Your task to perform on an android device: turn pop-ups on in chrome Image 0: 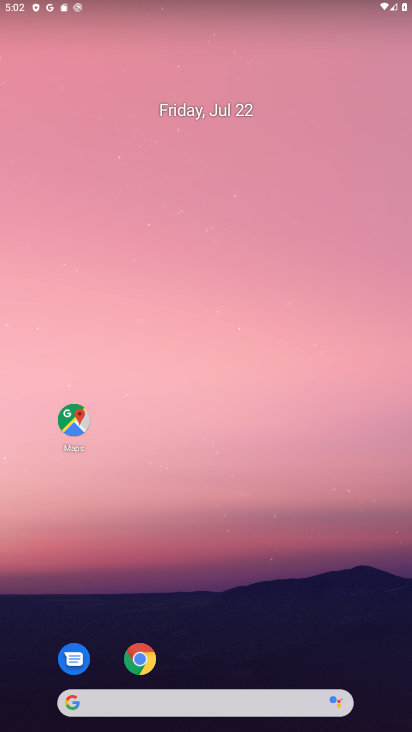
Step 0: press home button
Your task to perform on an android device: turn pop-ups on in chrome Image 1: 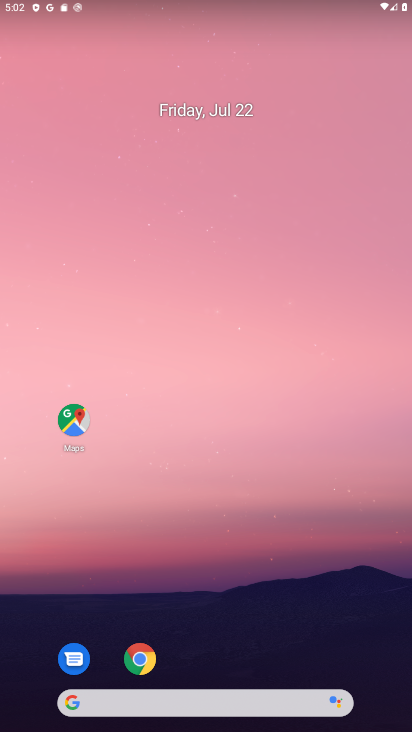
Step 1: click (137, 651)
Your task to perform on an android device: turn pop-ups on in chrome Image 2: 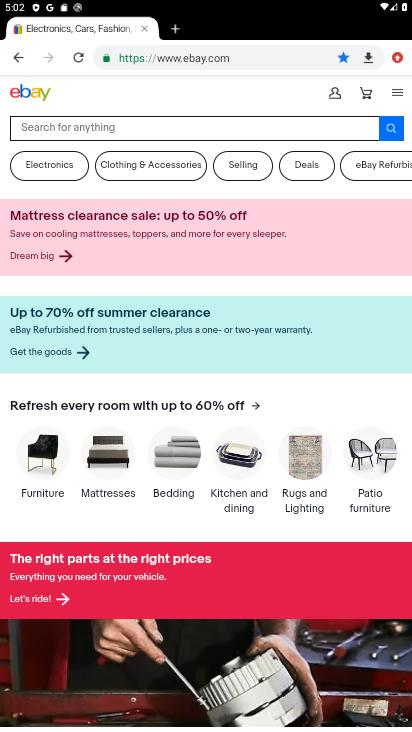
Step 2: click (396, 55)
Your task to perform on an android device: turn pop-ups on in chrome Image 3: 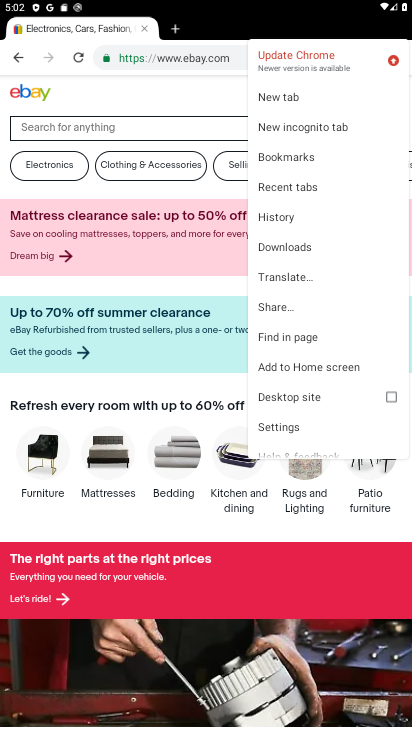
Step 3: click (306, 426)
Your task to perform on an android device: turn pop-ups on in chrome Image 4: 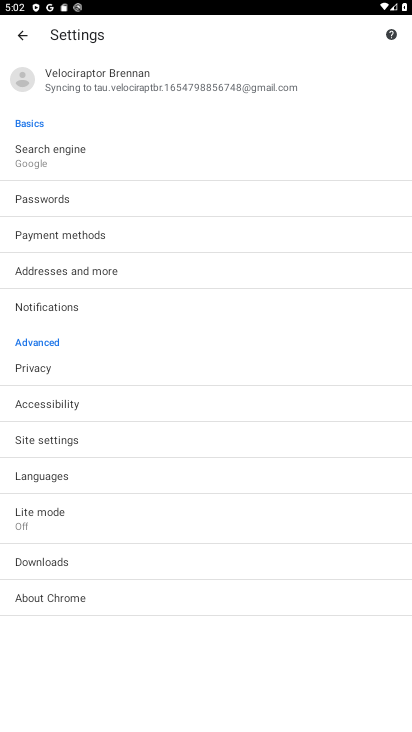
Step 4: click (87, 437)
Your task to perform on an android device: turn pop-ups on in chrome Image 5: 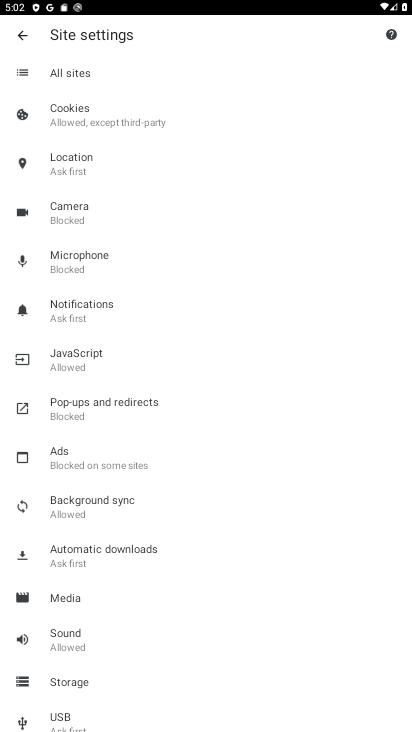
Step 5: click (108, 411)
Your task to perform on an android device: turn pop-ups on in chrome Image 6: 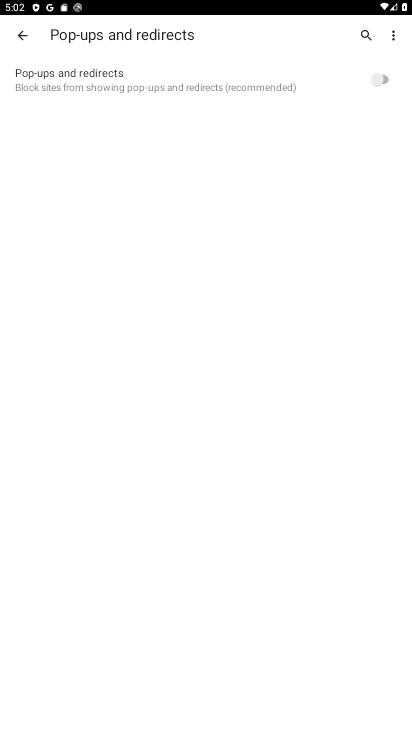
Step 6: click (377, 78)
Your task to perform on an android device: turn pop-ups on in chrome Image 7: 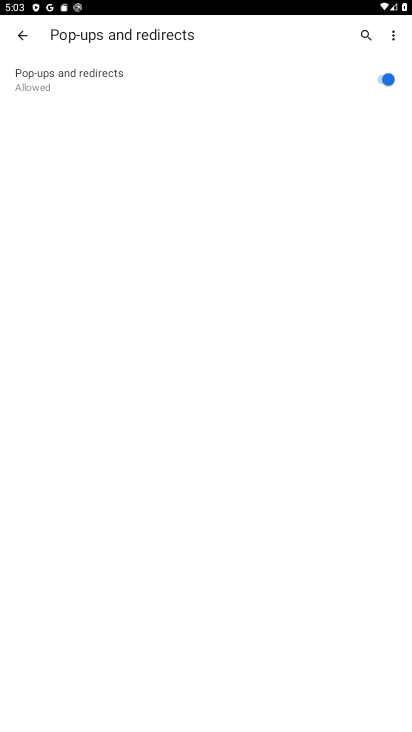
Step 7: task complete